Your task to perform on an android device: Open Chrome and go to settings Image 0: 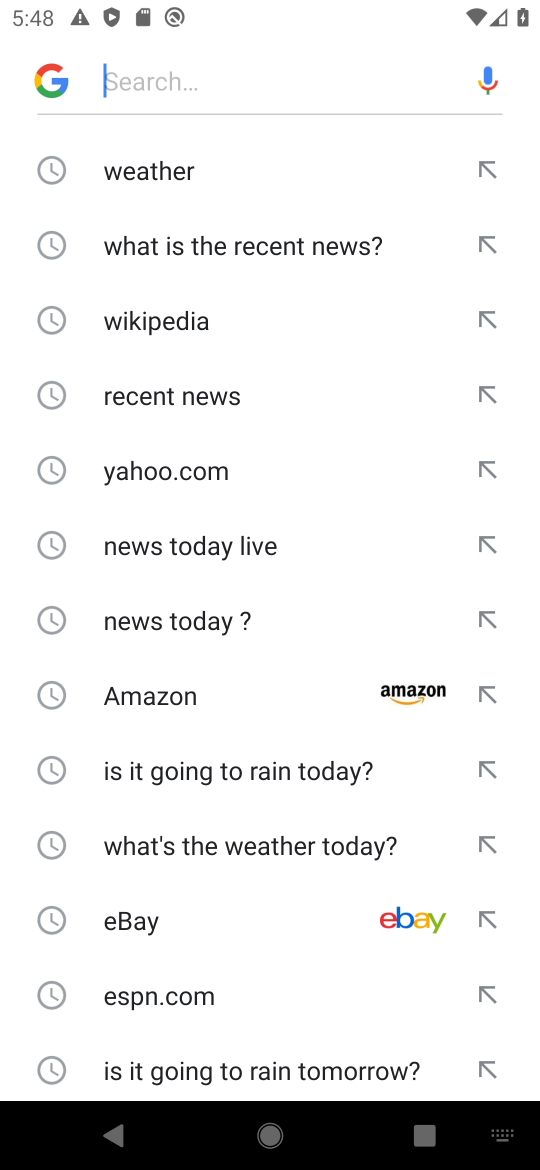
Step 0: press home button
Your task to perform on an android device: Open Chrome and go to settings Image 1: 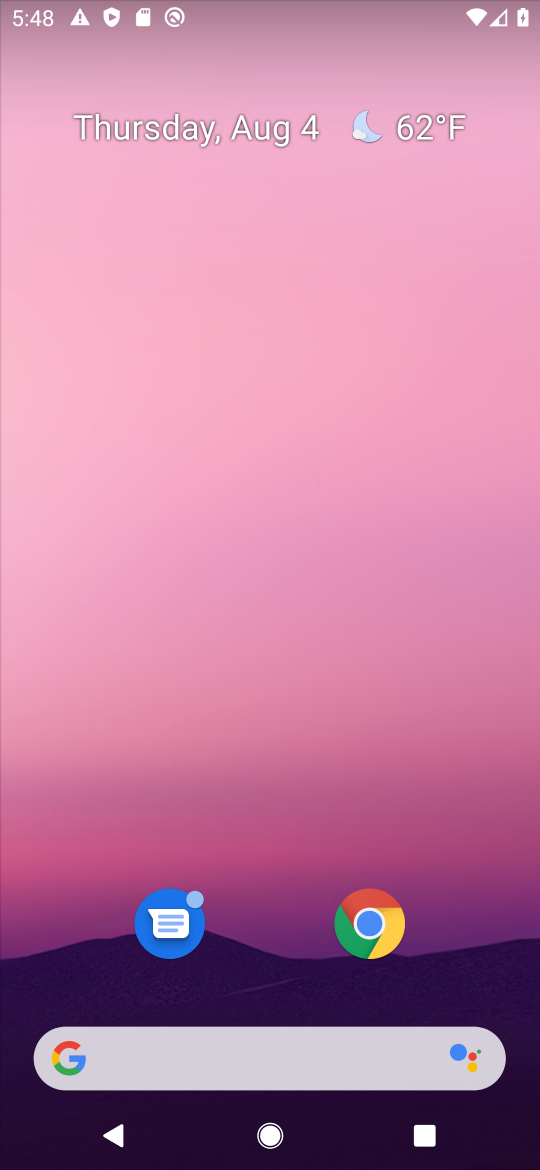
Step 1: click (381, 929)
Your task to perform on an android device: Open Chrome and go to settings Image 2: 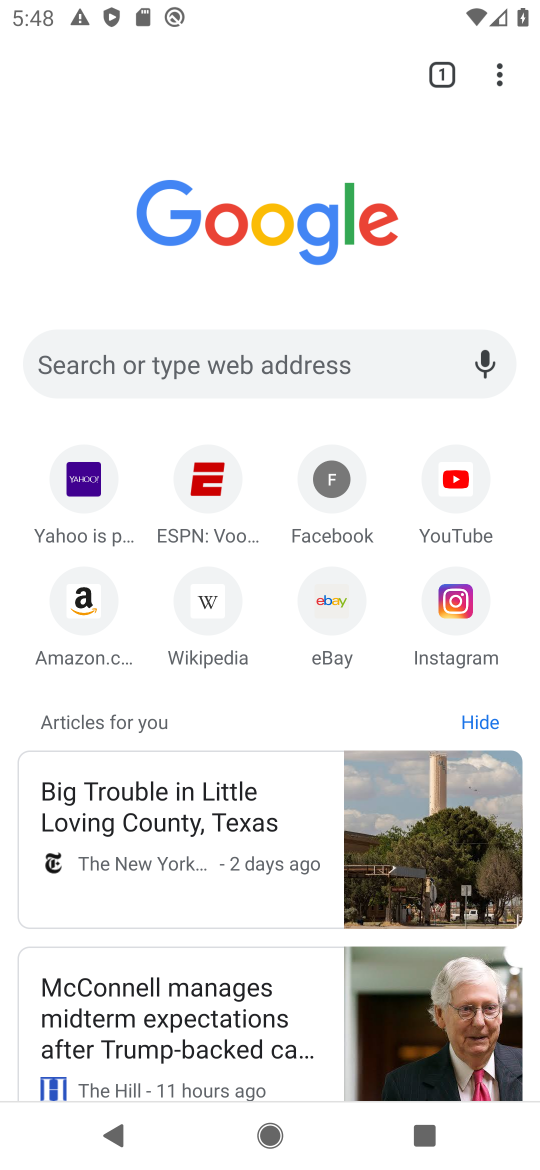
Step 2: click (507, 83)
Your task to perform on an android device: Open Chrome and go to settings Image 3: 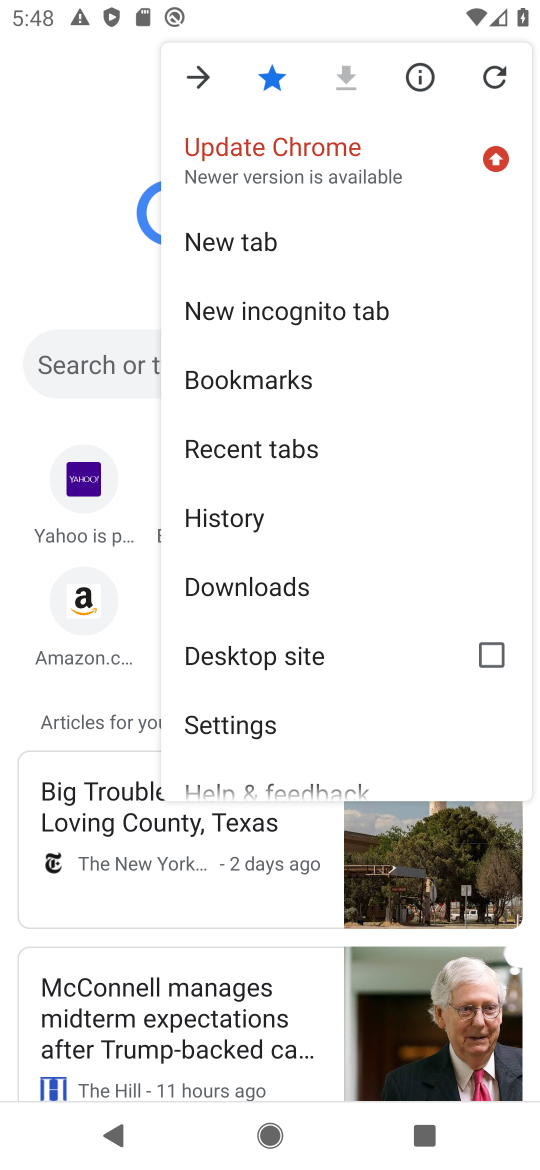
Step 3: click (269, 731)
Your task to perform on an android device: Open Chrome and go to settings Image 4: 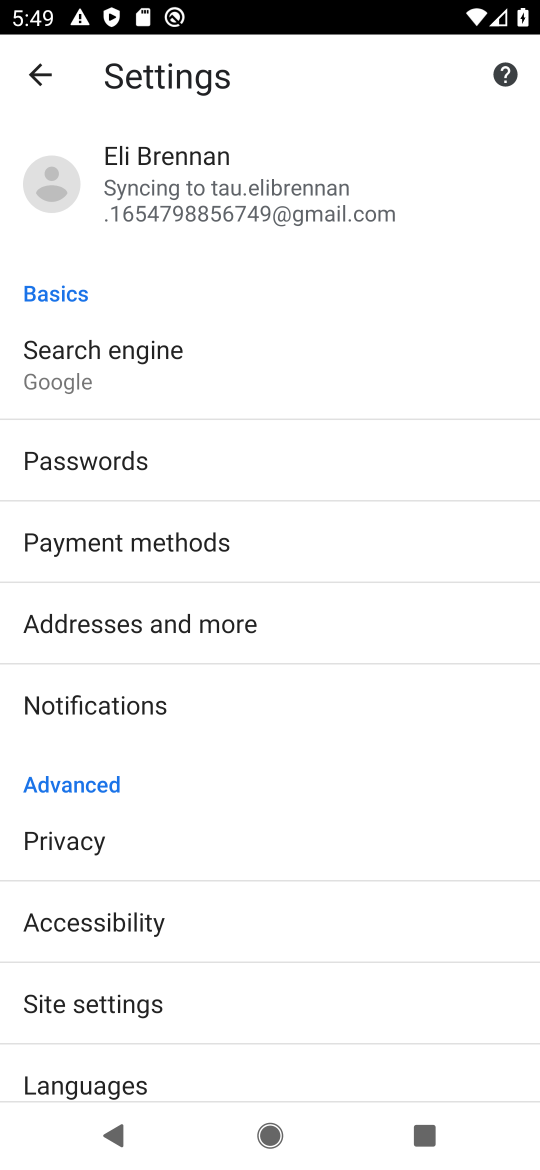
Step 4: task complete